Your task to perform on an android device: set an alarm Image 0: 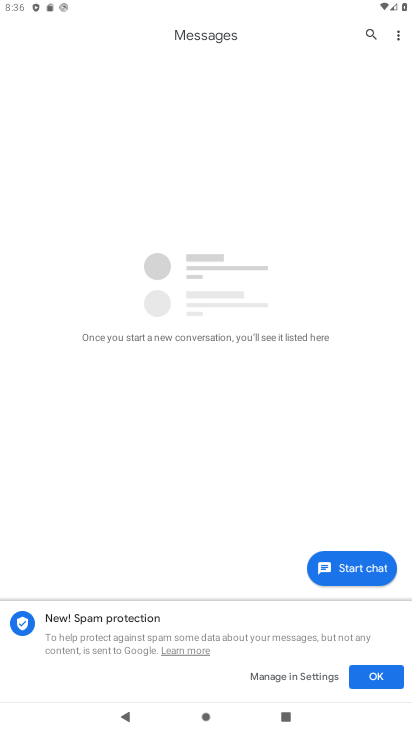
Step 0: press home button
Your task to perform on an android device: set an alarm Image 1: 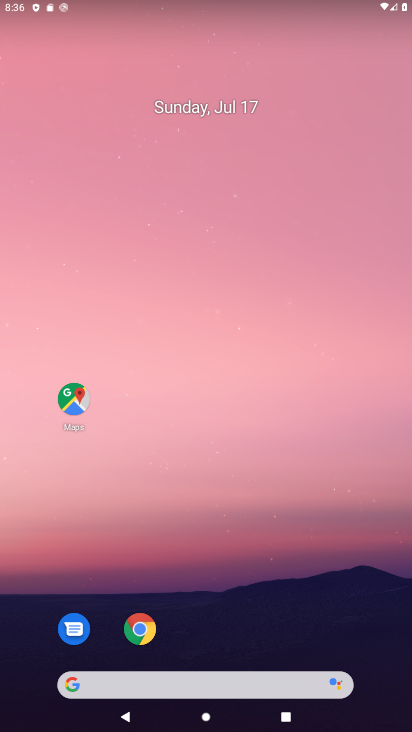
Step 1: drag from (258, 612) to (329, 62)
Your task to perform on an android device: set an alarm Image 2: 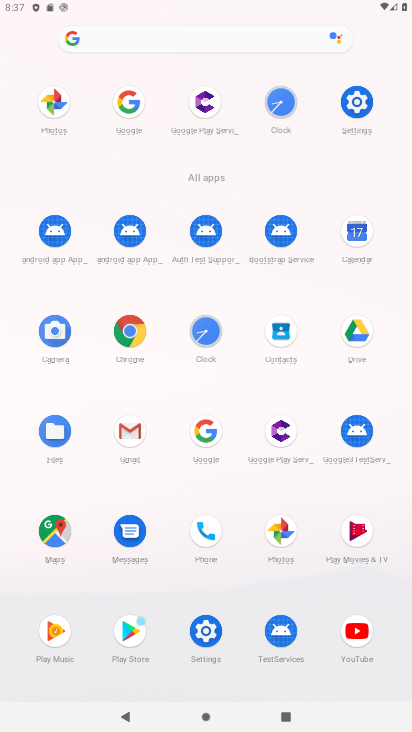
Step 2: click (206, 319)
Your task to perform on an android device: set an alarm Image 3: 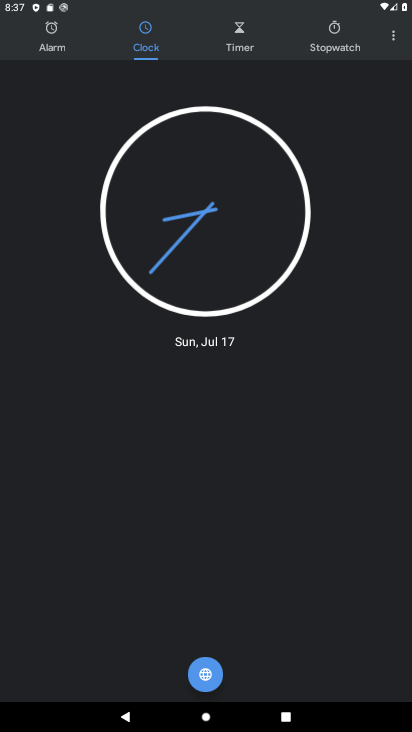
Step 3: click (35, 37)
Your task to perform on an android device: set an alarm Image 4: 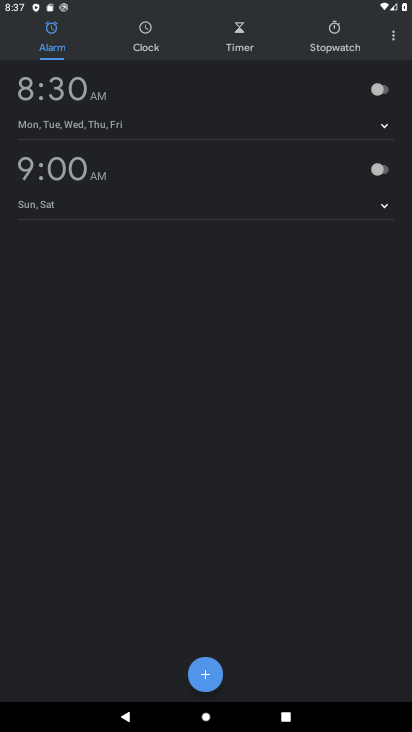
Step 4: click (199, 677)
Your task to perform on an android device: set an alarm Image 5: 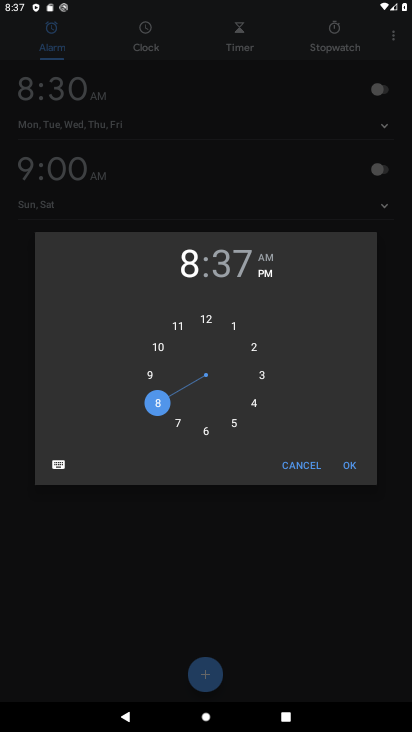
Step 5: click (351, 462)
Your task to perform on an android device: set an alarm Image 6: 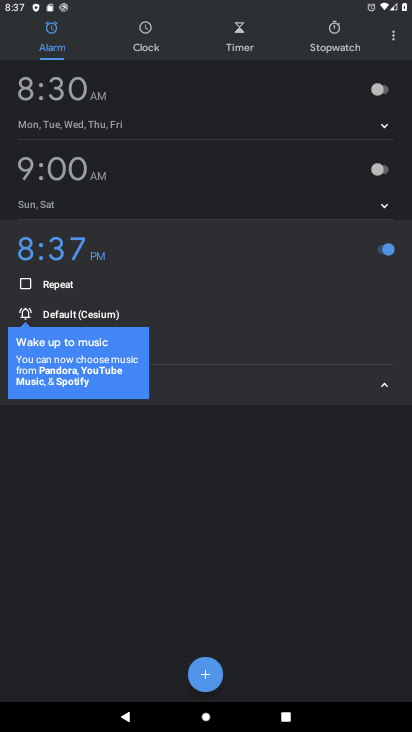
Step 6: click (382, 389)
Your task to perform on an android device: set an alarm Image 7: 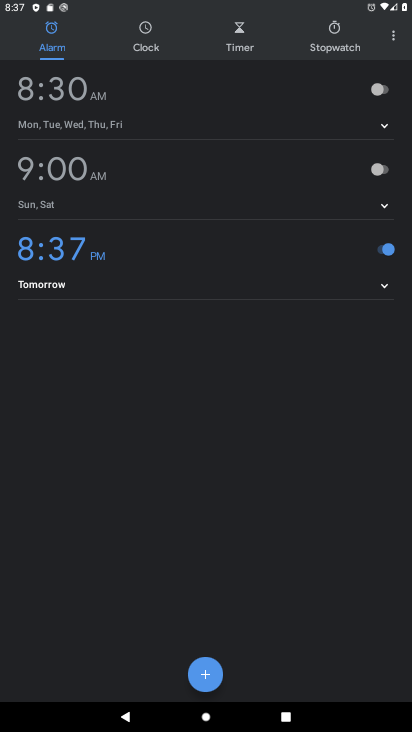
Step 7: task complete